Your task to perform on an android device: turn smart compose on in the gmail app Image 0: 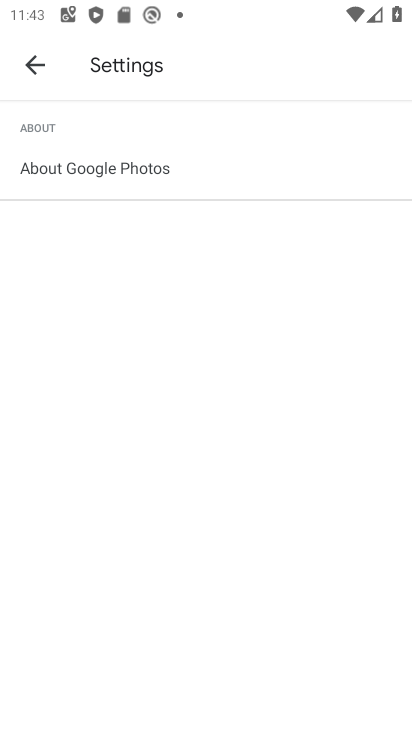
Step 0: press home button
Your task to perform on an android device: turn smart compose on in the gmail app Image 1: 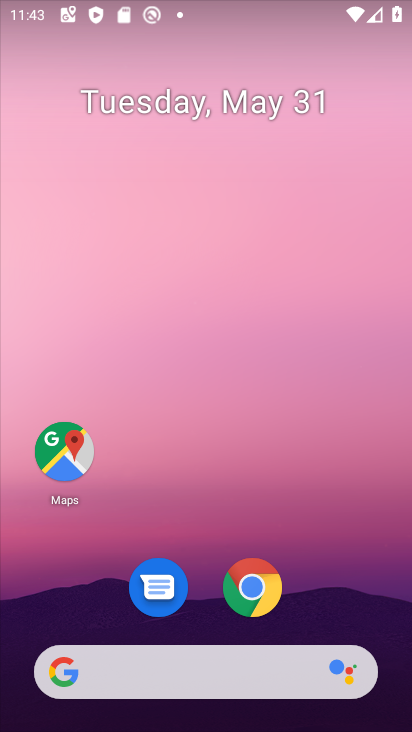
Step 1: drag from (365, 530) to (395, 93)
Your task to perform on an android device: turn smart compose on in the gmail app Image 2: 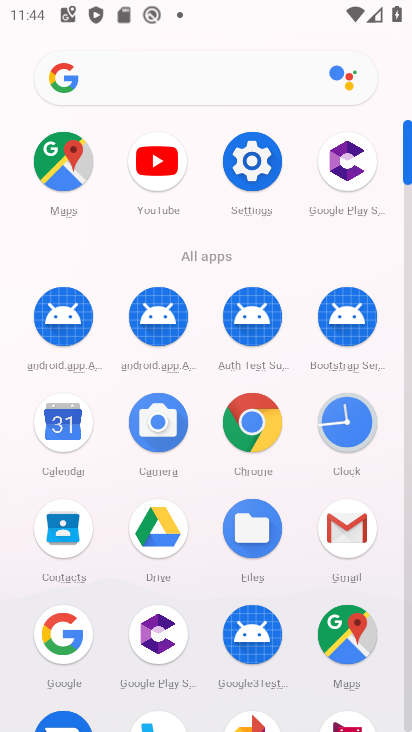
Step 2: click (344, 535)
Your task to perform on an android device: turn smart compose on in the gmail app Image 3: 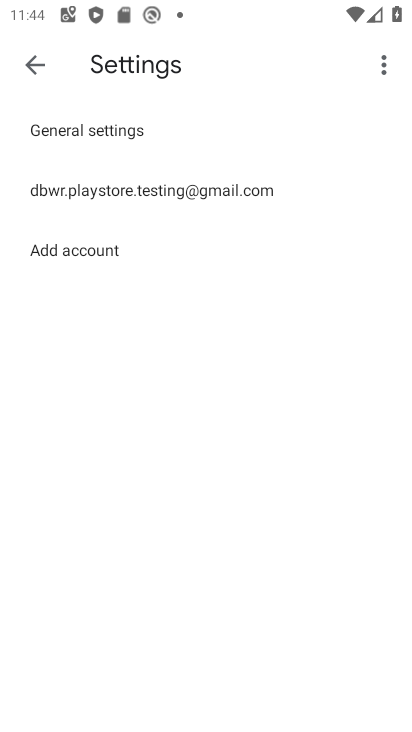
Step 3: click (86, 186)
Your task to perform on an android device: turn smart compose on in the gmail app Image 4: 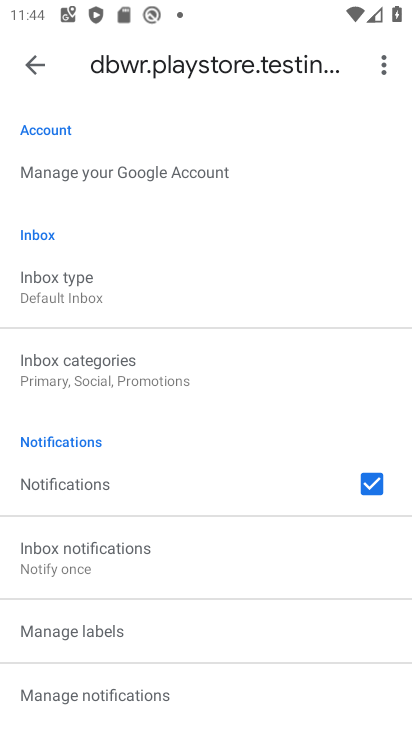
Step 4: task complete